Your task to perform on an android device: set an alarm Image 0: 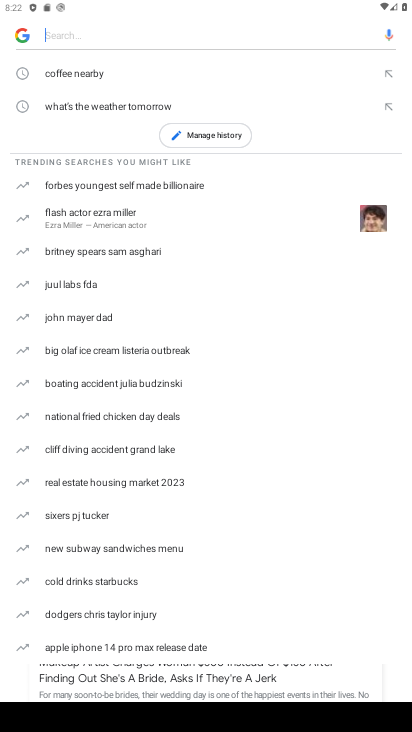
Step 0: press home button
Your task to perform on an android device: set an alarm Image 1: 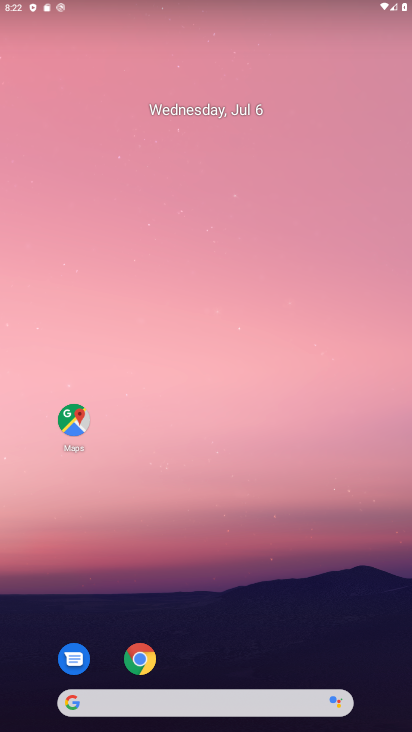
Step 1: drag from (276, 671) to (410, 210)
Your task to perform on an android device: set an alarm Image 2: 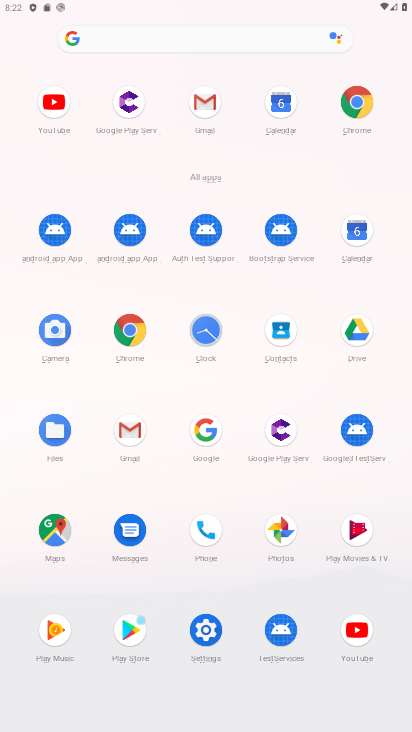
Step 2: click (204, 322)
Your task to perform on an android device: set an alarm Image 3: 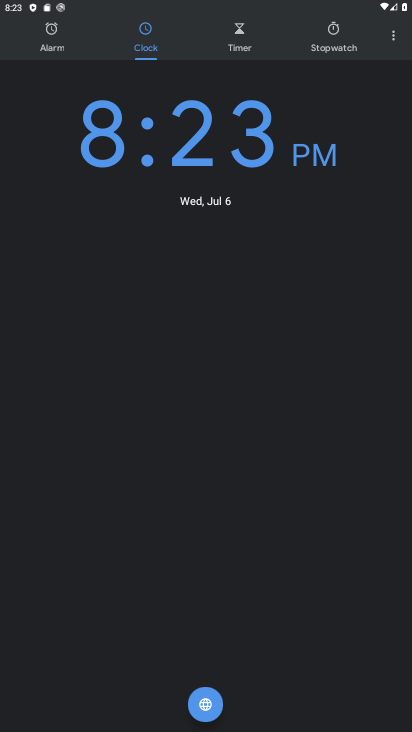
Step 3: click (41, 37)
Your task to perform on an android device: set an alarm Image 4: 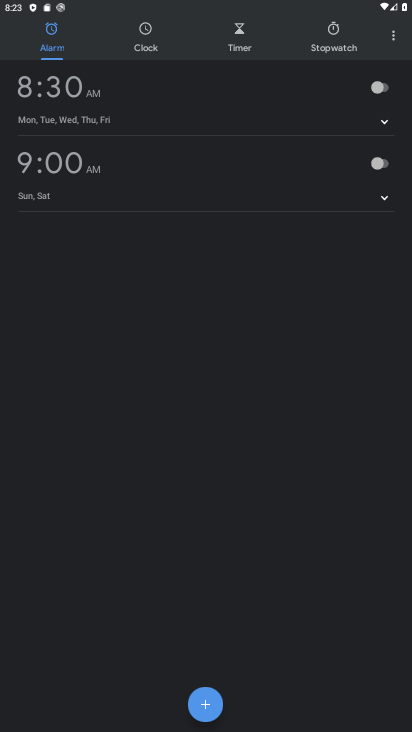
Step 4: click (385, 83)
Your task to perform on an android device: set an alarm Image 5: 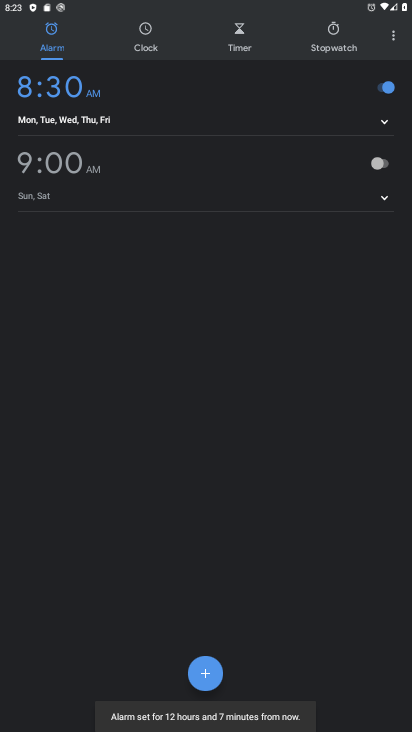
Step 5: task complete